Your task to perform on an android device: turn on airplane mode Image 0: 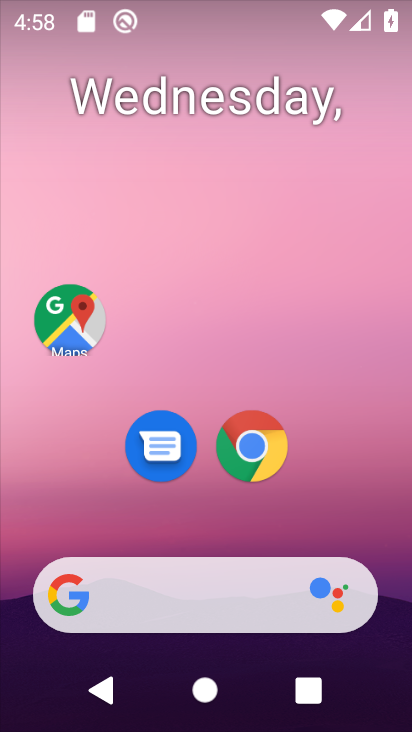
Step 0: drag from (339, 497) to (372, 0)
Your task to perform on an android device: turn on airplane mode Image 1: 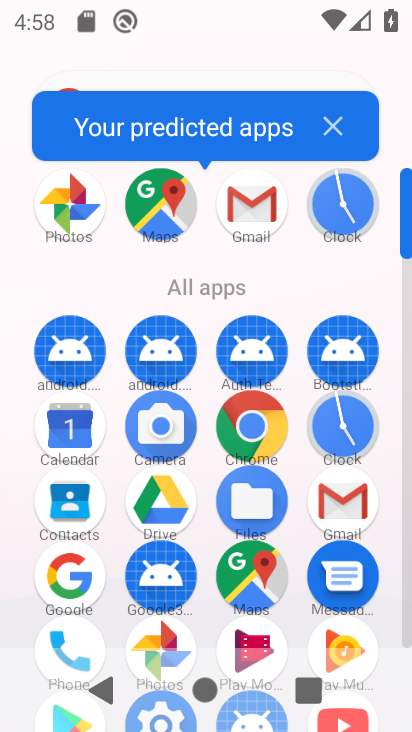
Step 1: drag from (295, 390) to (343, 3)
Your task to perform on an android device: turn on airplane mode Image 2: 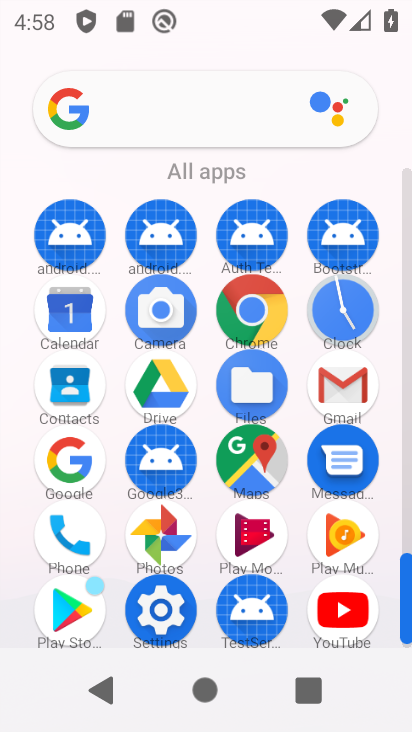
Step 2: click (144, 623)
Your task to perform on an android device: turn on airplane mode Image 3: 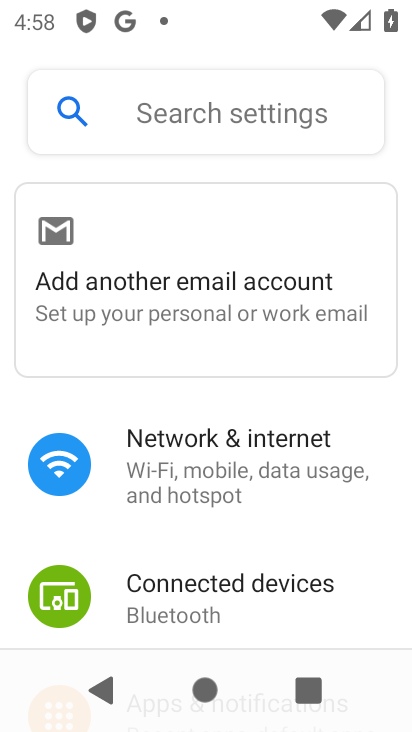
Step 3: click (224, 447)
Your task to perform on an android device: turn on airplane mode Image 4: 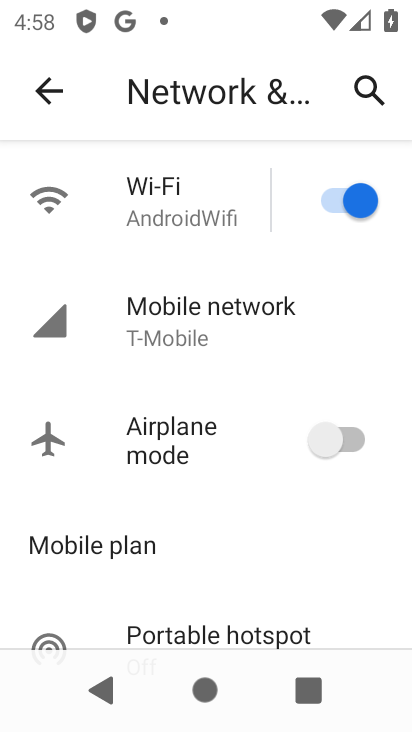
Step 4: click (345, 442)
Your task to perform on an android device: turn on airplane mode Image 5: 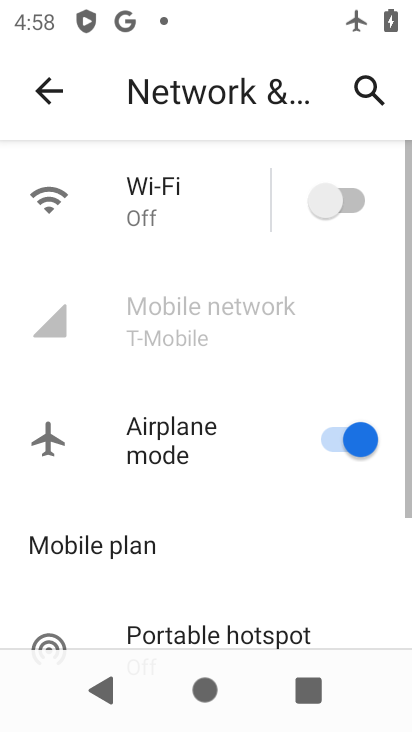
Step 5: task complete